Your task to perform on an android device: What's the weather going to be tomorrow? Image 0: 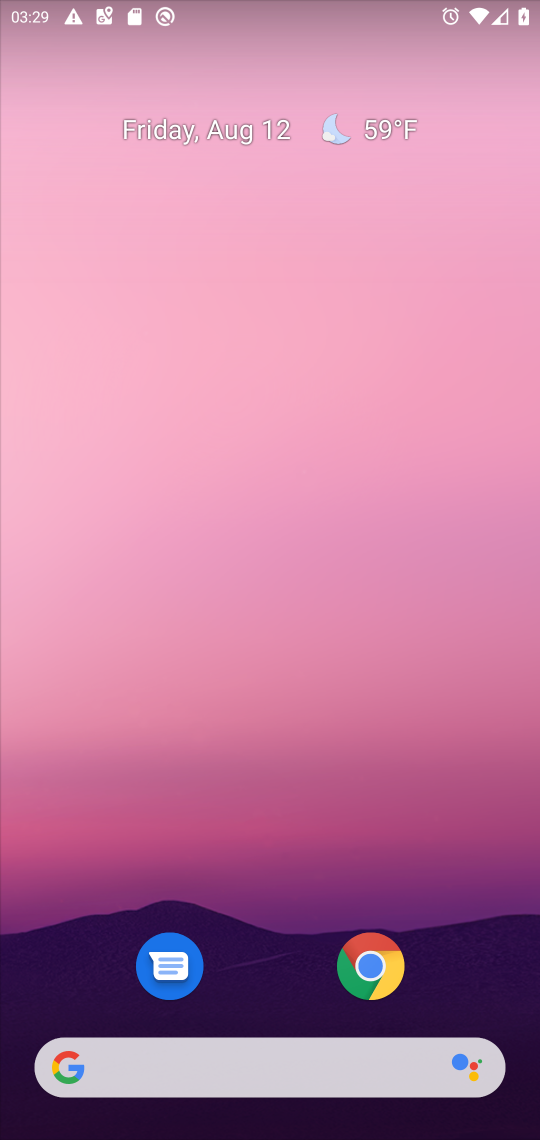
Step 0: click (372, 125)
Your task to perform on an android device: What's the weather going to be tomorrow? Image 1: 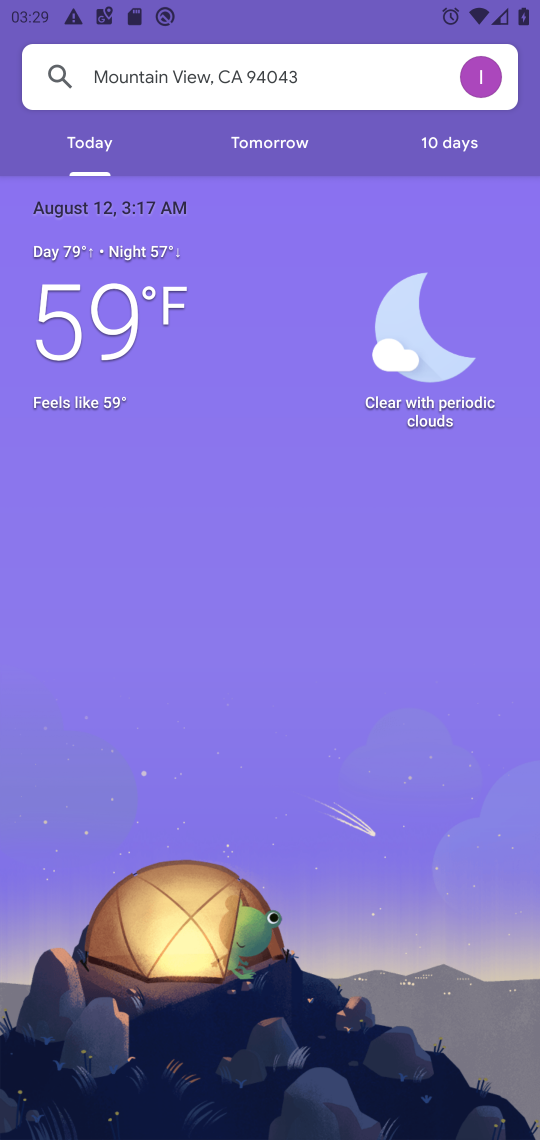
Step 1: click (264, 132)
Your task to perform on an android device: What's the weather going to be tomorrow? Image 2: 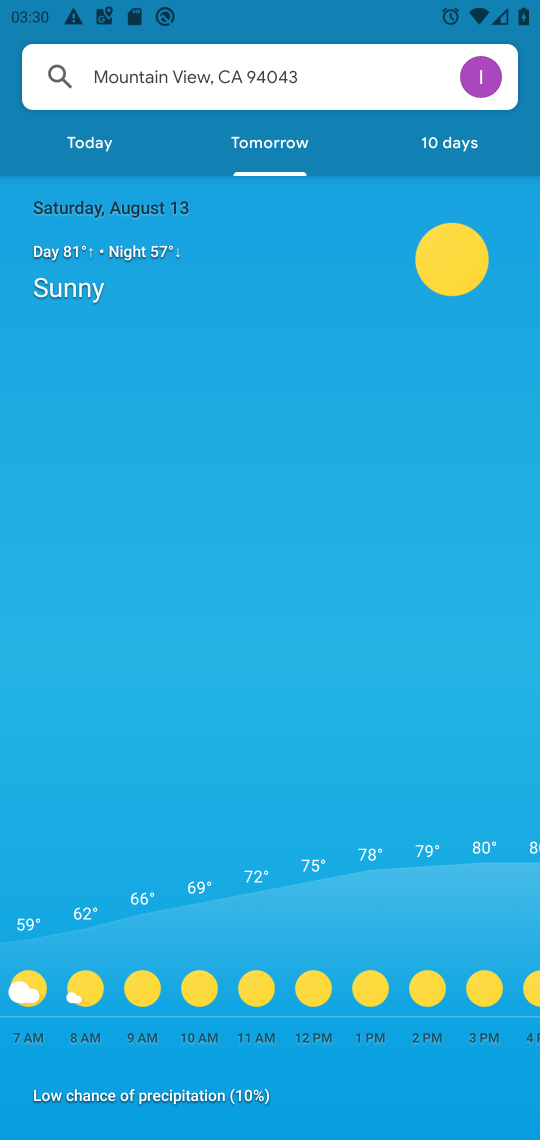
Step 2: task complete